Your task to perform on an android device: open chrome privacy settings Image 0: 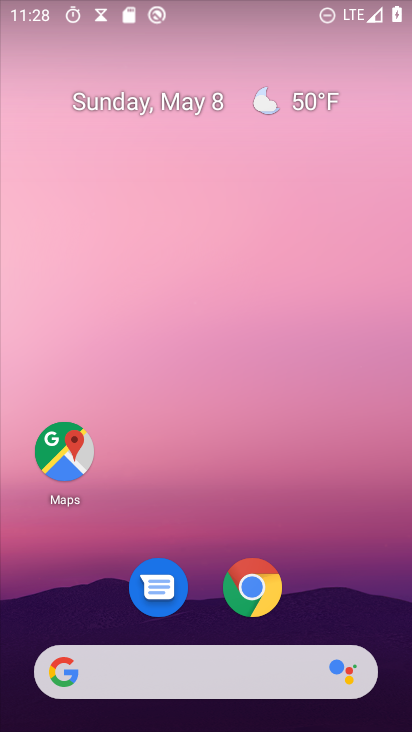
Step 0: click (260, 590)
Your task to perform on an android device: open chrome privacy settings Image 1: 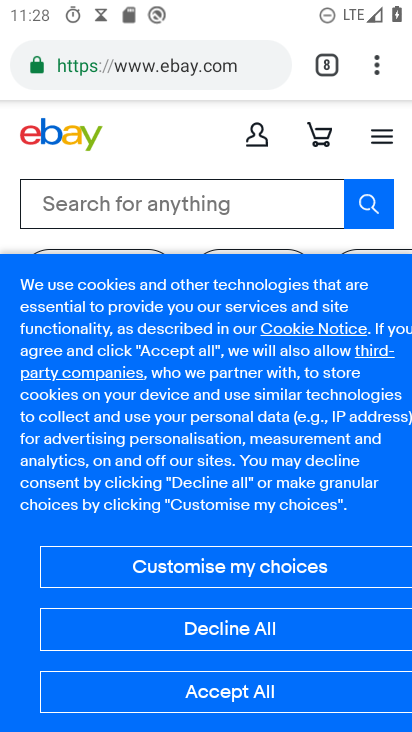
Step 1: drag from (376, 63) to (226, 636)
Your task to perform on an android device: open chrome privacy settings Image 2: 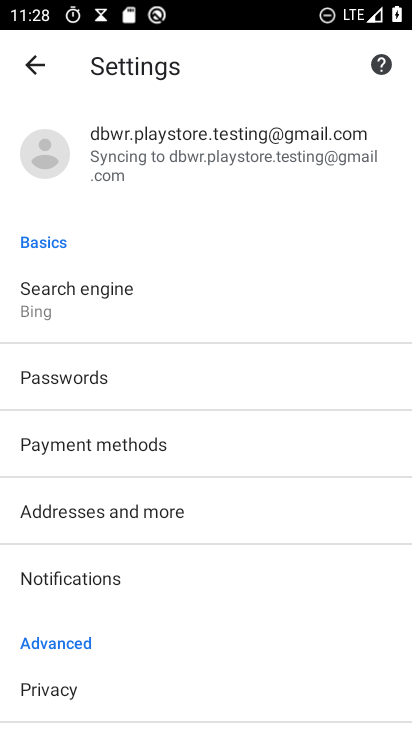
Step 2: click (87, 692)
Your task to perform on an android device: open chrome privacy settings Image 3: 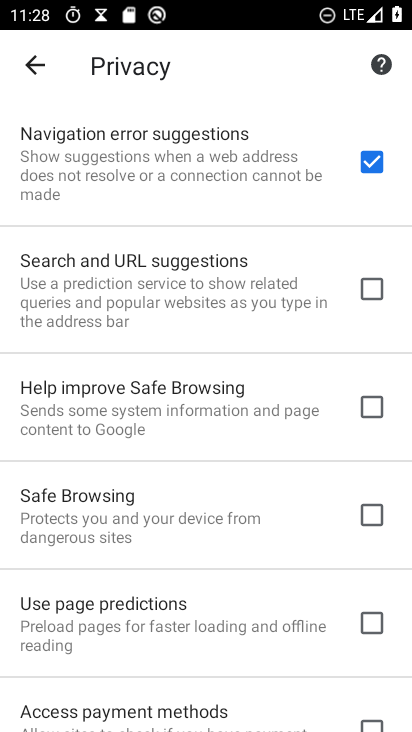
Step 3: task complete